Your task to perform on an android device: Clear the shopping cart on bestbuy. Add dell xps to the cart on bestbuy, then select checkout. Image 0: 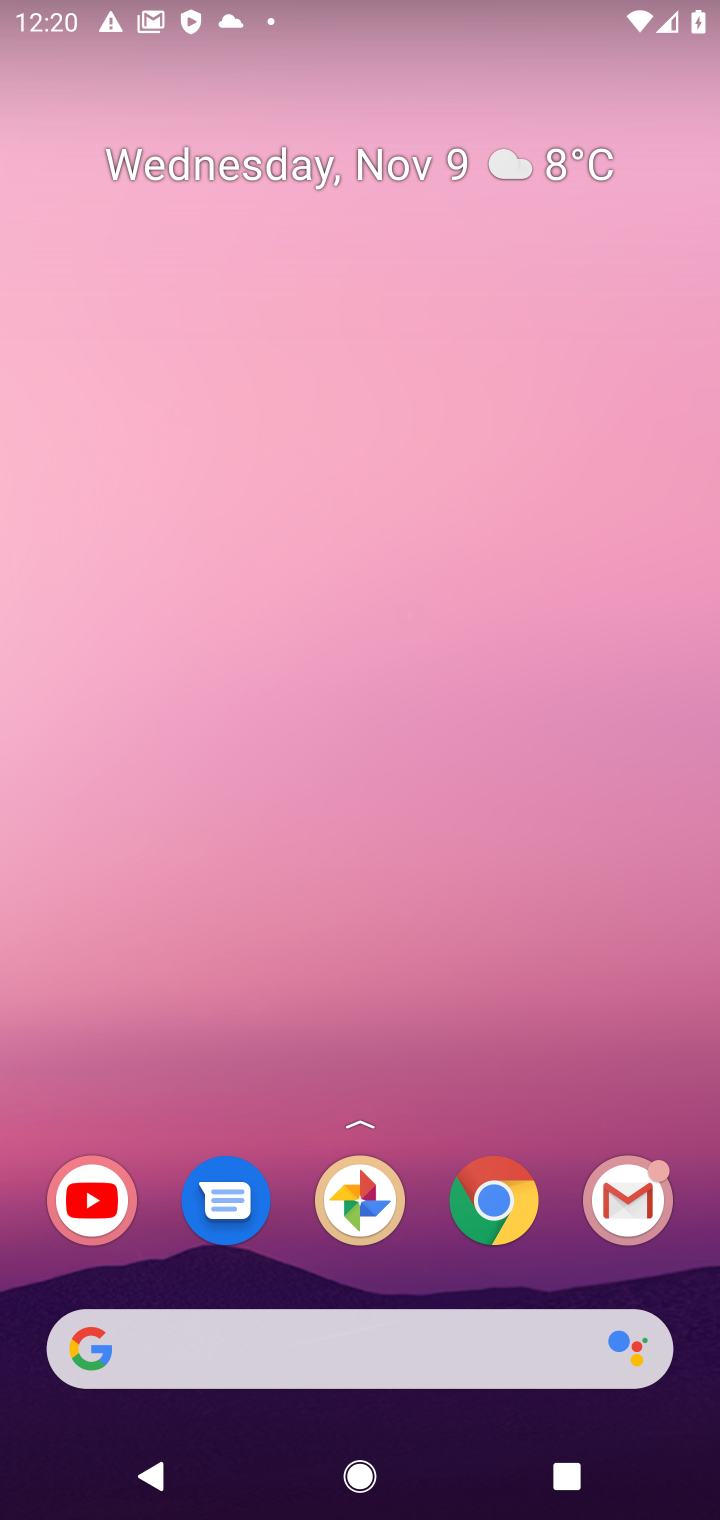
Step 0: click (402, 1353)
Your task to perform on an android device: Clear the shopping cart on bestbuy. Add dell xps to the cart on bestbuy, then select checkout. Image 1: 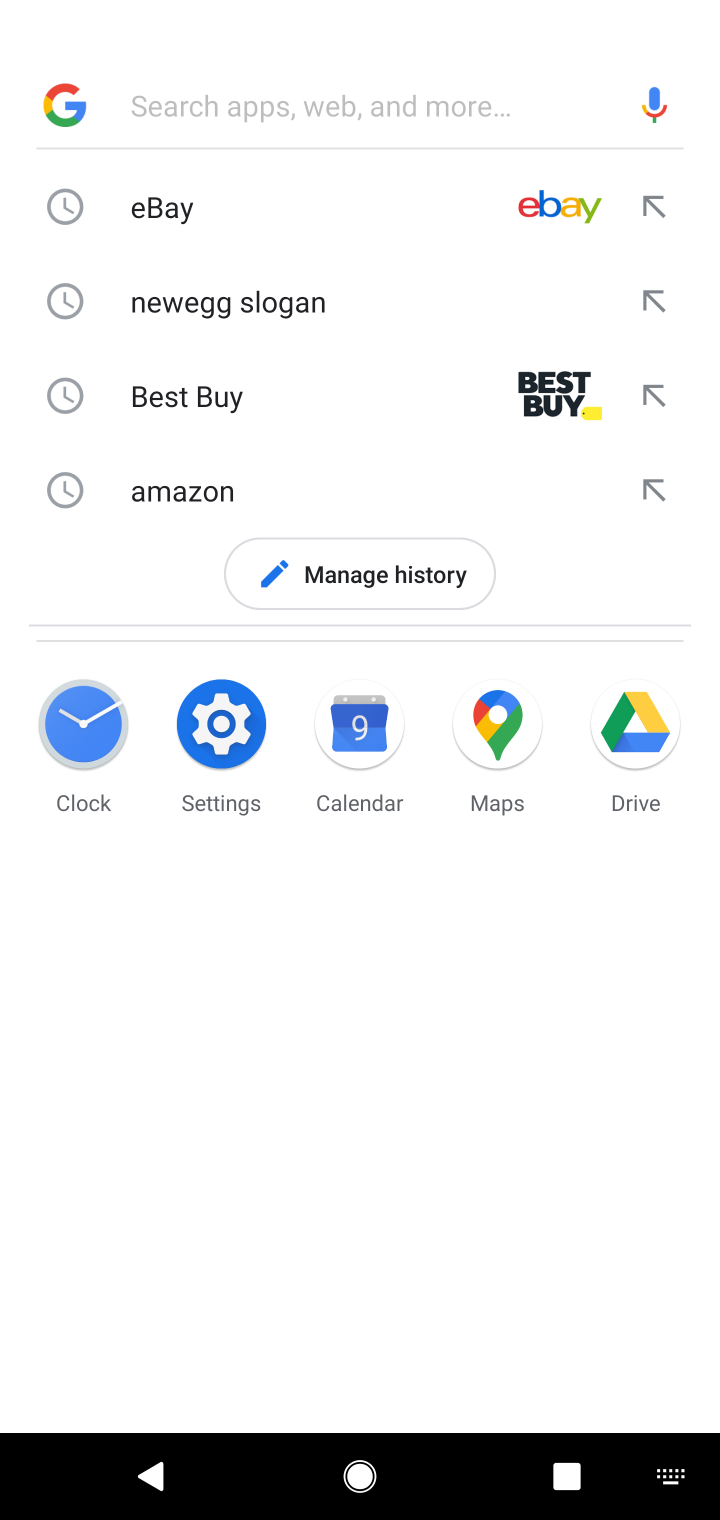
Step 1: type "bestbuy"
Your task to perform on an android device: Clear the shopping cart on bestbuy. Add dell xps to the cart on bestbuy, then select checkout. Image 2: 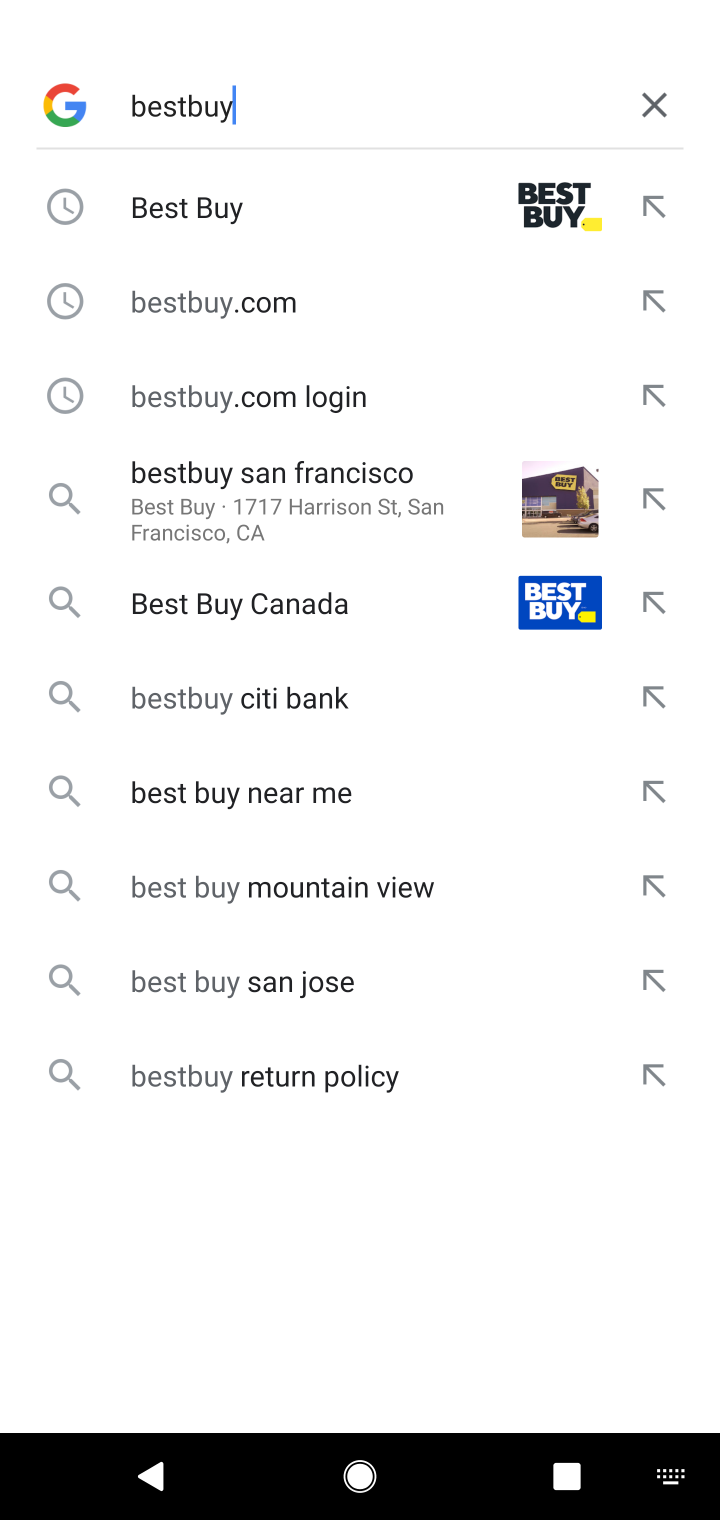
Step 2: click (408, 206)
Your task to perform on an android device: Clear the shopping cart on bestbuy. Add dell xps to the cart on bestbuy, then select checkout. Image 3: 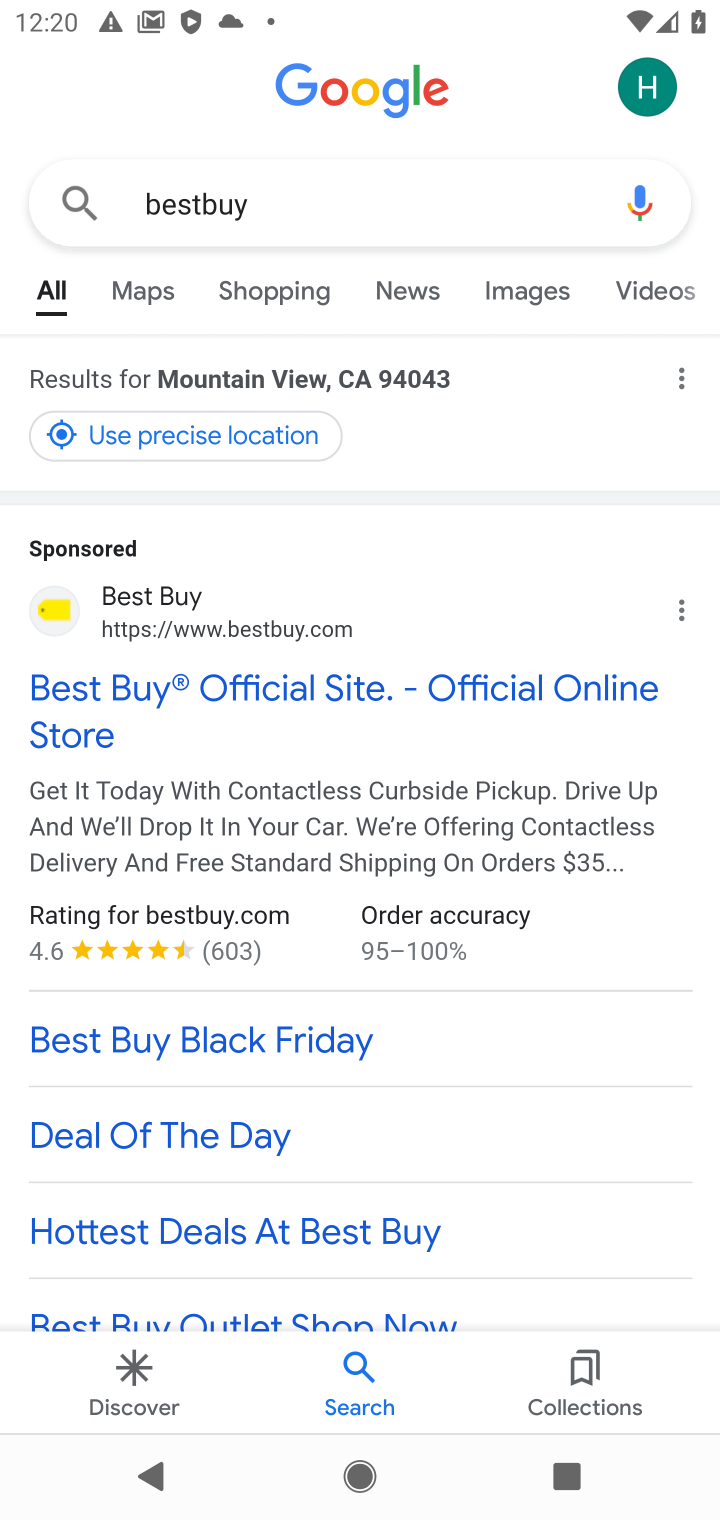
Step 3: click (219, 704)
Your task to perform on an android device: Clear the shopping cart on bestbuy. Add dell xps to the cart on bestbuy, then select checkout. Image 4: 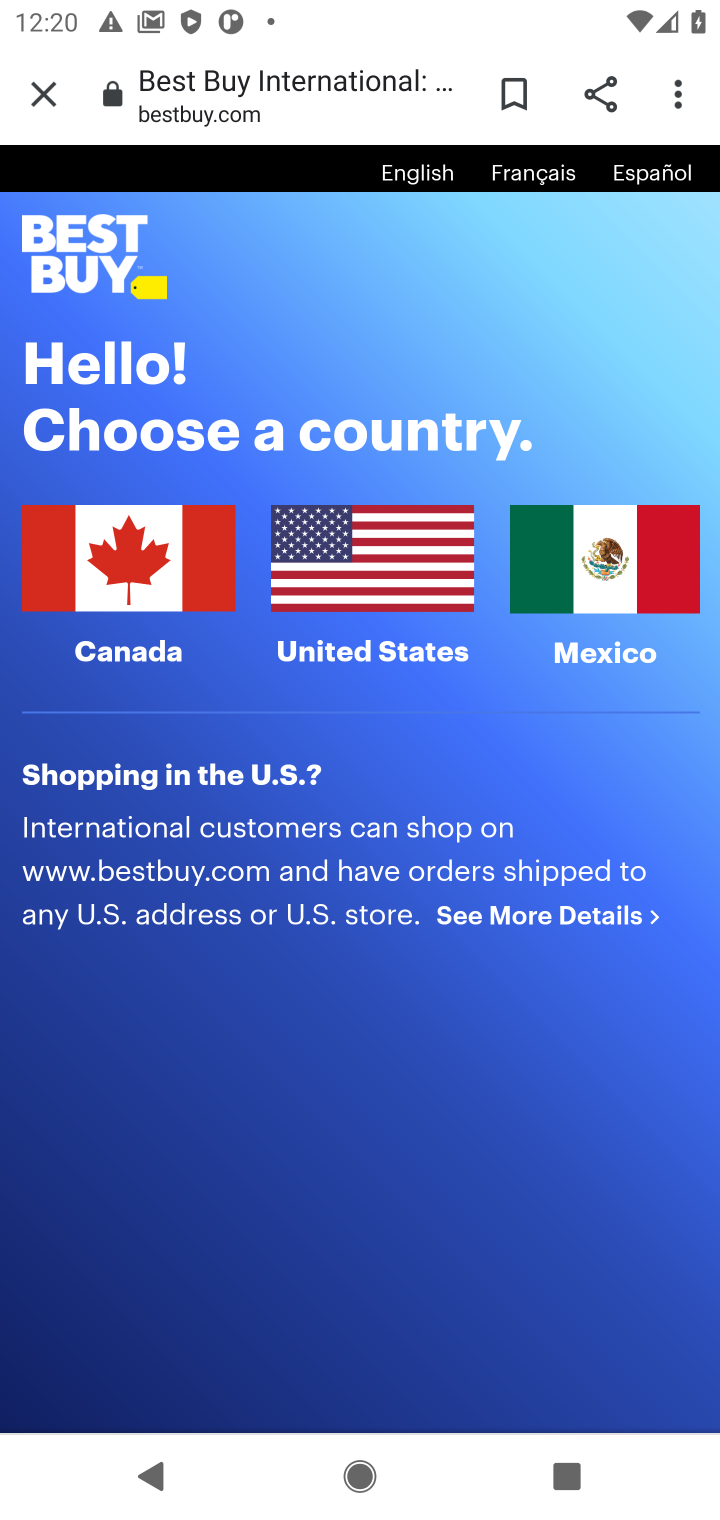
Step 4: click (139, 586)
Your task to perform on an android device: Clear the shopping cart on bestbuy. Add dell xps to the cart on bestbuy, then select checkout. Image 5: 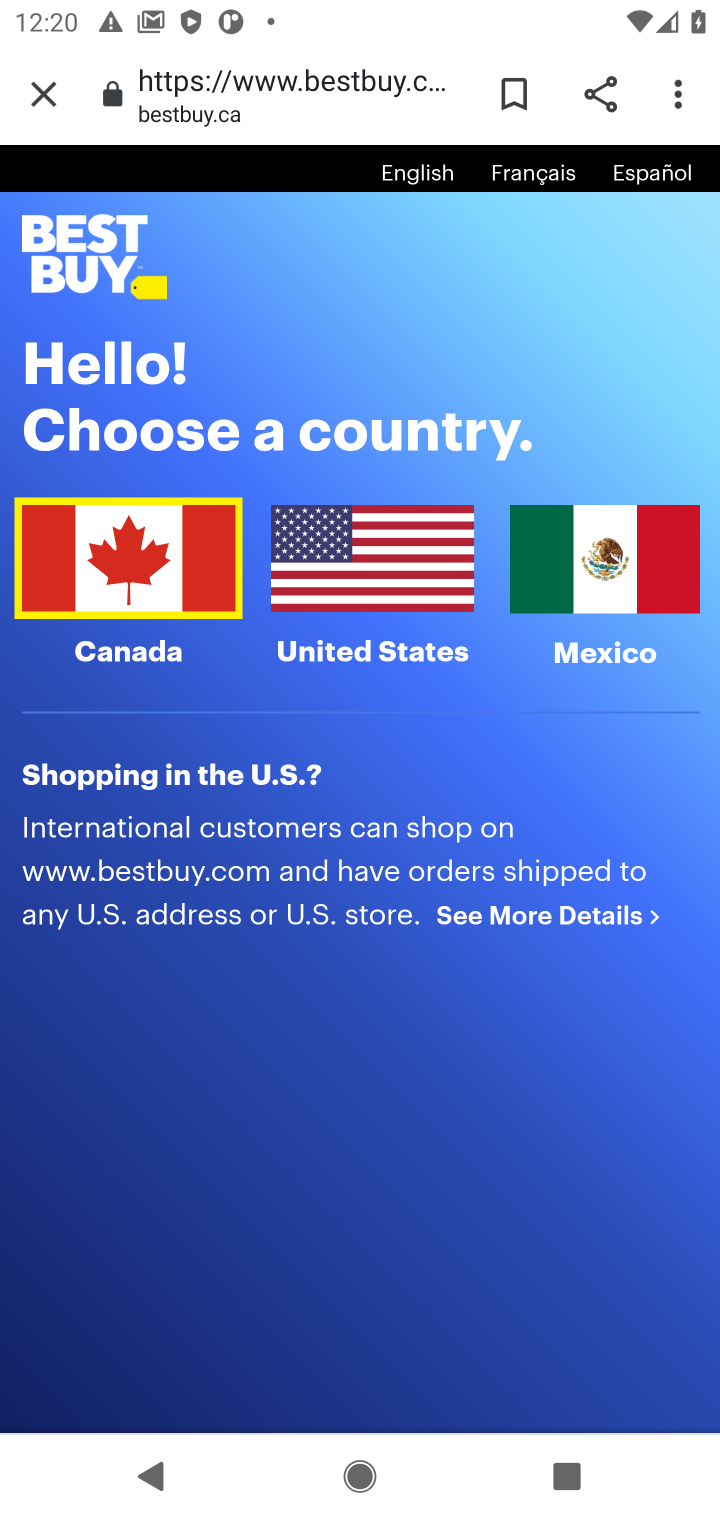
Step 5: task complete